Your task to perform on an android device: turn off data saver in the chrome app Image 0: 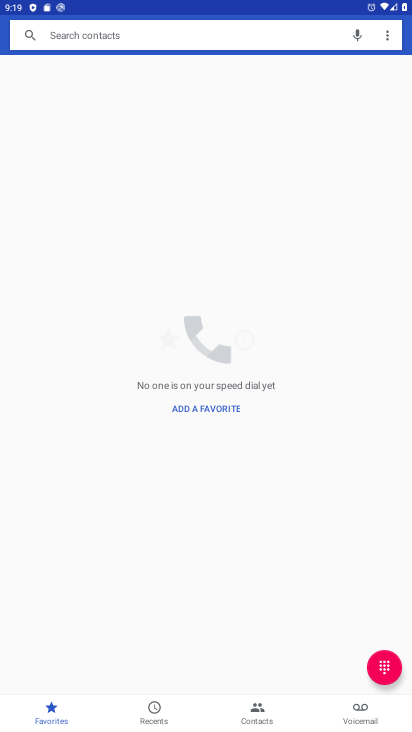
Step 0: press home button
Your task to perform on an android device: turn off data saver in the chrome app Image 1: 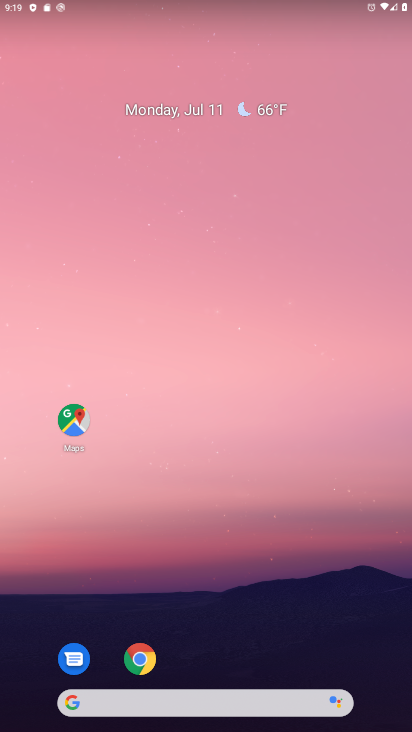
Step 1: drag from (353, 653) to (363, 157)
Your task to perform on an android device: turn off data saver in the chrome app Image 2: 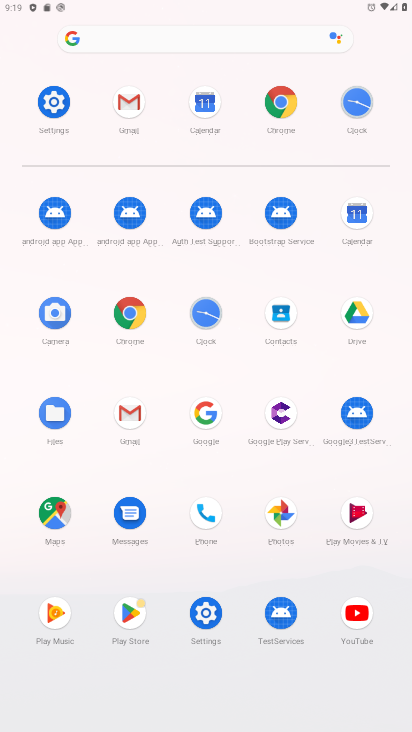
Step 2: click (134, 315)
Your task to perform on an android device: turn off data saver in the chrome app Image 3: 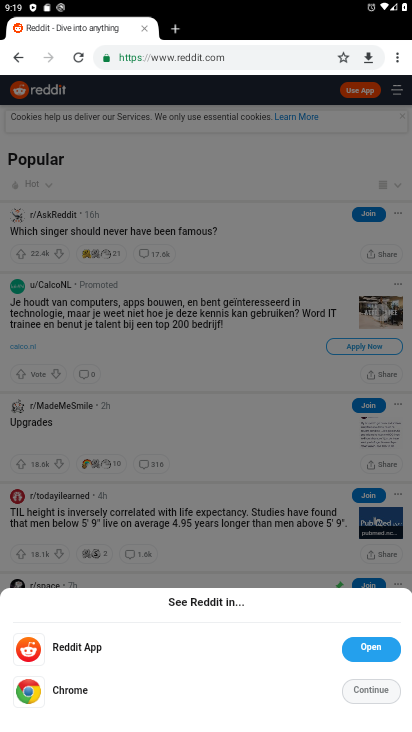
Step 3: click (396, 55)
Your task to perform on an android device: turn off data saver in the chrome app Image 4: 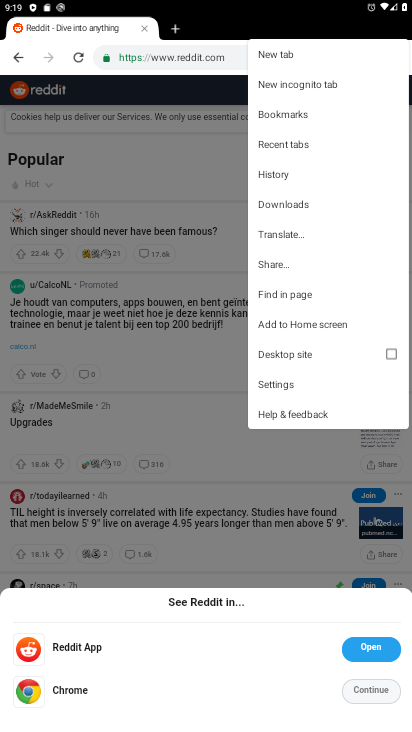
Step 4: click (293, 389)
Your task to perform on an android device: turn off data saver in the chrome app Image 5: 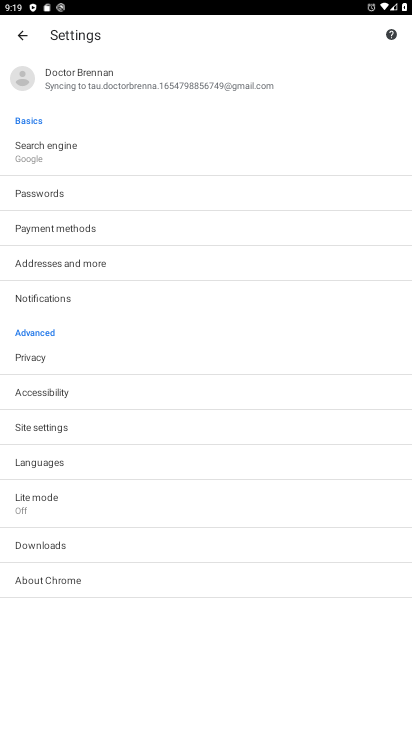
Step 5: drag from (306, 447) to (317, 278)
Your task to perform on an android device: turn off data saver in the chrome app Image 6: 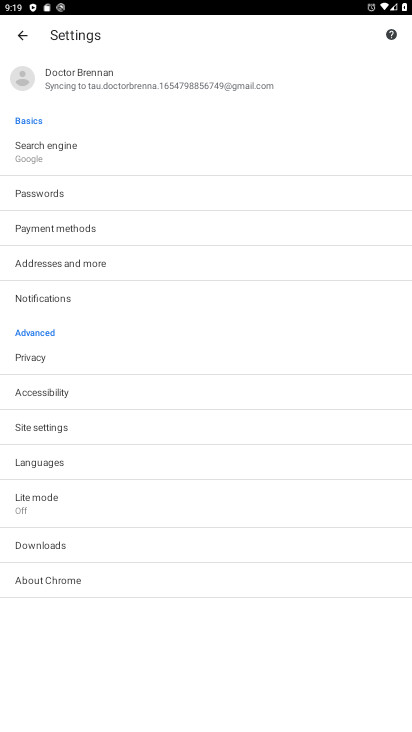
Step 6: click (246, 506)
Your task to perform on an android device: turn off data saver in the chrome app Image 7: 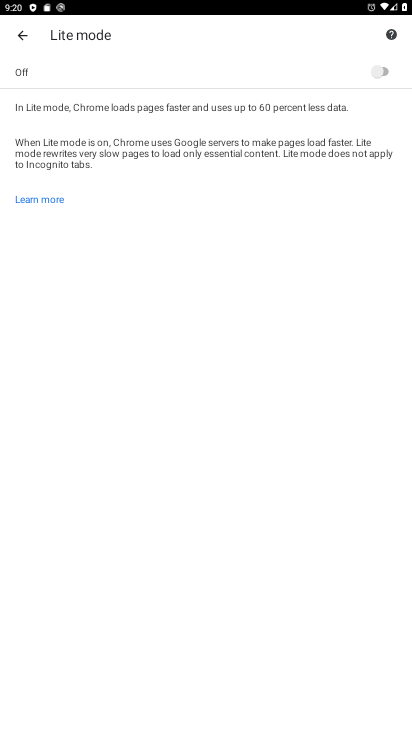
Step 7: task complete